Your task to perform on an android device: toggle wifi Image 0: 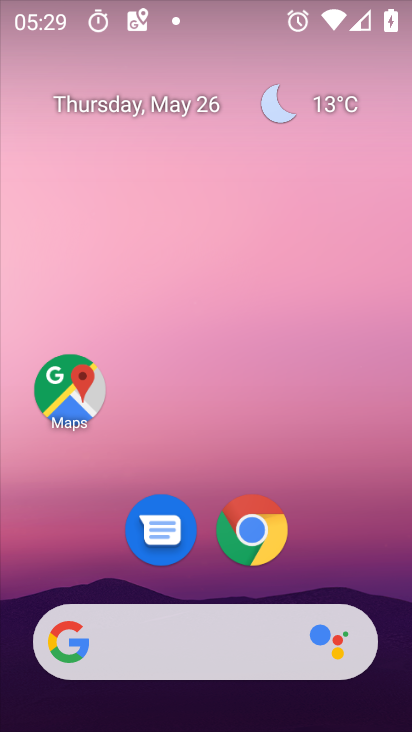
Step 0: drag from (274, 645) to (248, 63)
Your task to perform on an android device: toggle wifi Image 1: 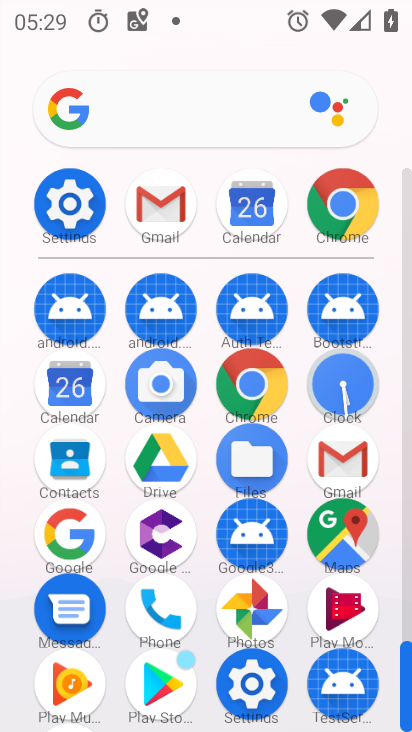
Step 1: click (65, 224)
Your task to perform on an android device: toggle wifi Image 2: 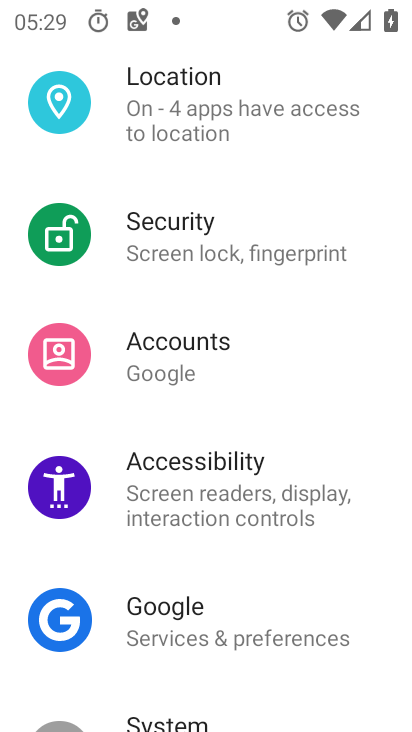
Step 2: drag from (245, 183) to (274, 681)
Your task to perform on an android device: toggle wifi Image 3: 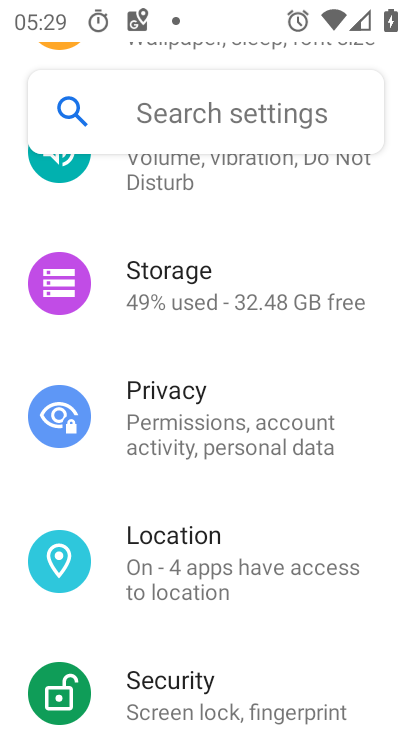
Step 3: drag from (239, 277) to (284, 729)
Your task to perform on an android device: toggle wifi Image 4: 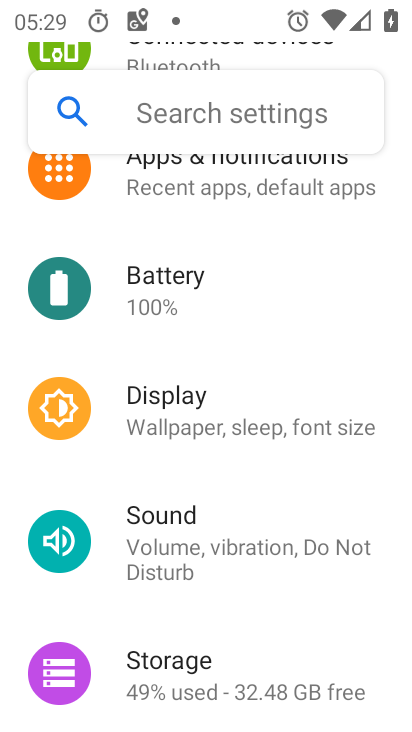
Step 4: drag from (243, 407) to (329, 731)
Your task to perform on an android device: toggle wifi Image 5: 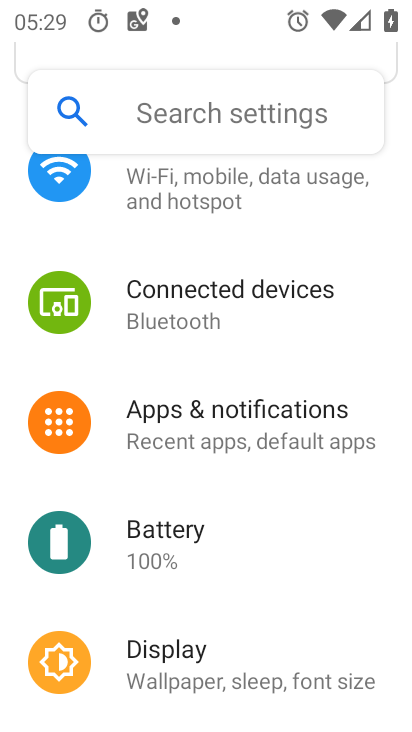
Step 5: drag from (259, 338) to (342, 718)
Your task to perform on an android device: toggle wifi Image 6: 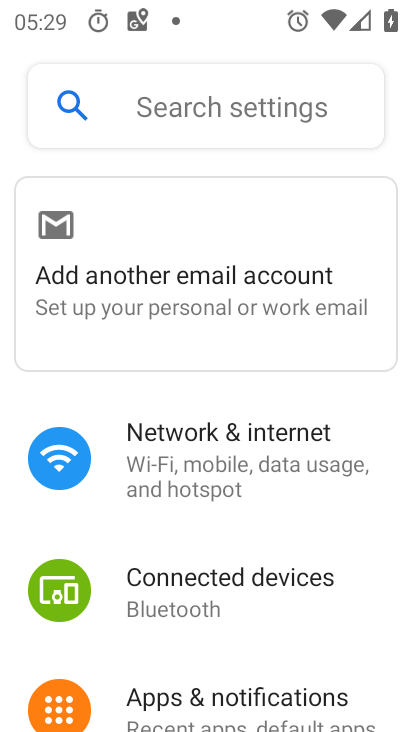
Step 6: click (250, 466)
Your task to perform on an android device: toggle wifi Image 7: 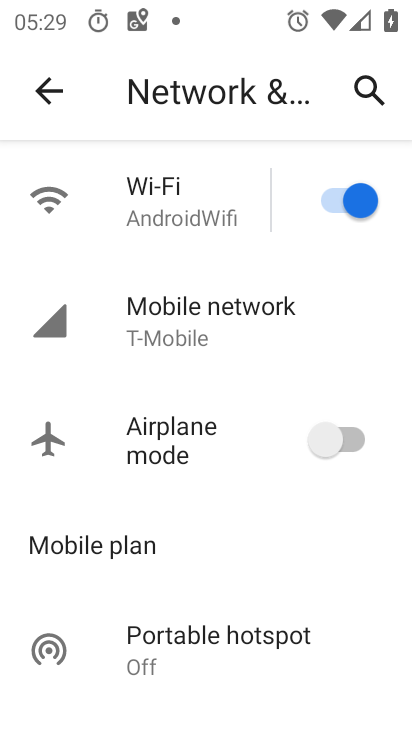
Step 7: click (336, 199)
Your task to perform on an android device: toggle wifi Image 8: 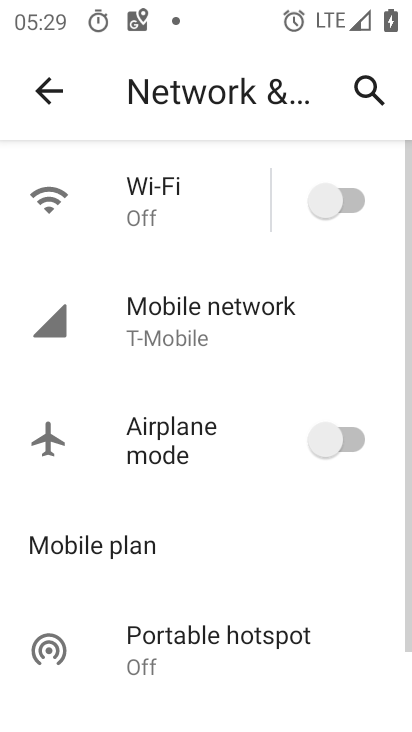
Step 8: task complete